Your task to perform on an android device: turn pop-ups off in chrome Image 0: 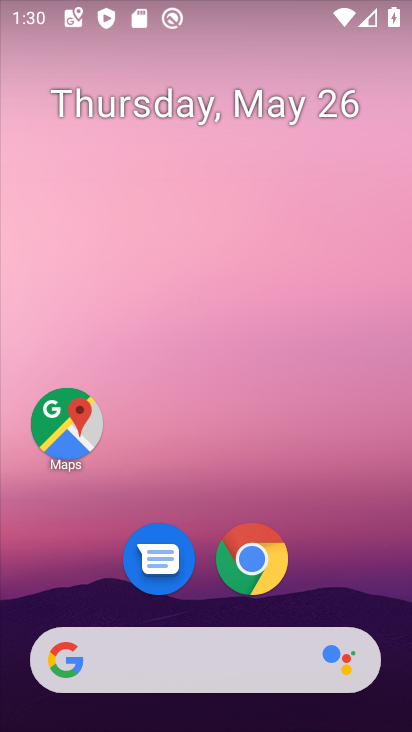
Step 0: press home button
Your task to perform on an android device: turn pop-ups off in chrome Image 1: 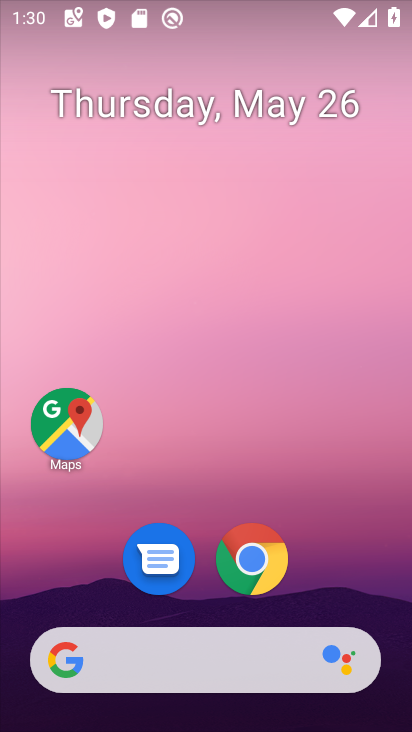
Step 1: click (250, 565)
Your task to perform on an android device: turn pop-ups off in chrome Image 2: 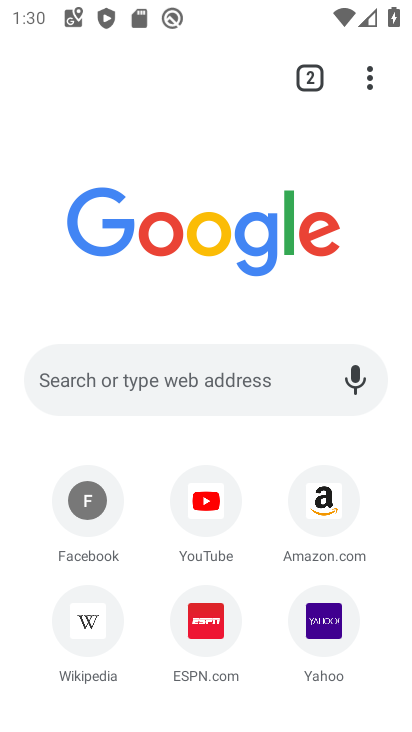
Step 2: drag from (363, 74) to (205, 626)
Your task to perform on an android device: turn pop-ups off in chrome Image 3: 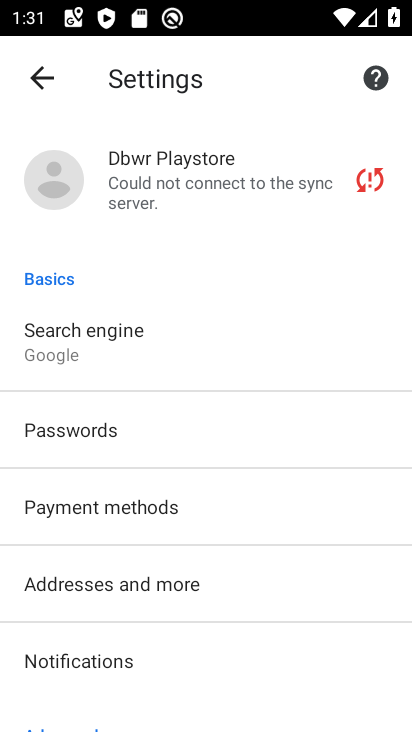
Step 3: drag from (193, 639) to (320, 197)
Your task to perform on an android device: turn pop-ups off in chrome Image 4: 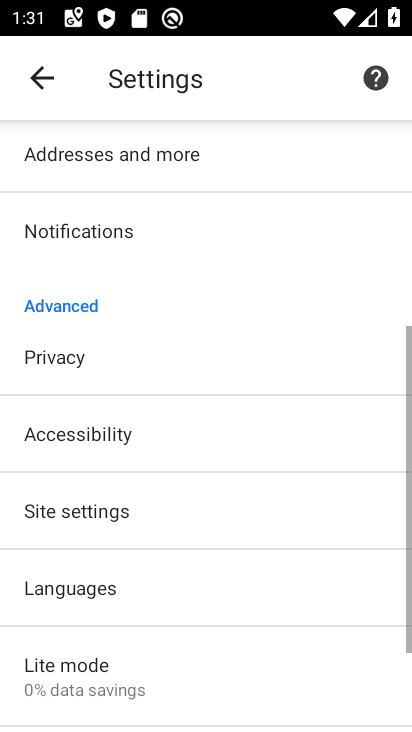
Step 4: click (101, 507)
Your task to perform on an android device: turn pop-ups off in chrome Image 5: 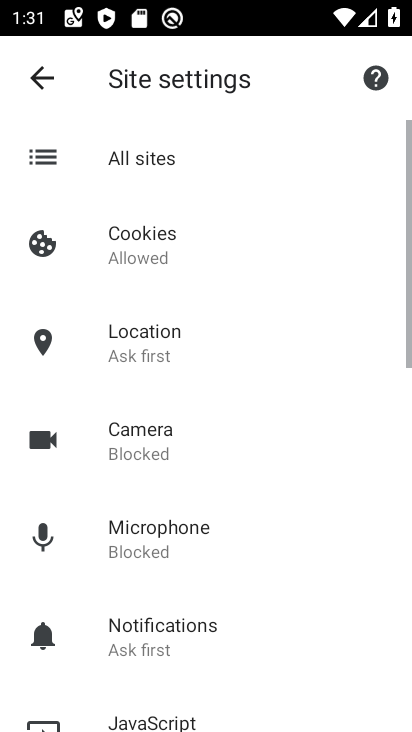
Step 5: drag from (176, 649) to (291, 230)
Your task to perform on an android device: turn pop-ups off in chrome Image 6: 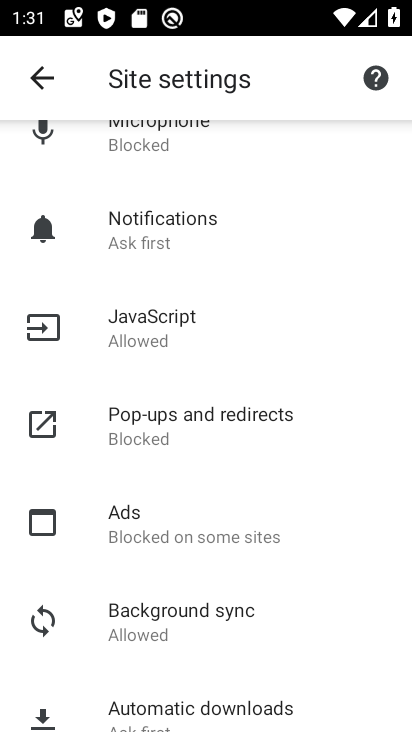
Step 6: click (198, 415)
Your task to perform on an android device: turn pop-ups off in chrome Image 7: 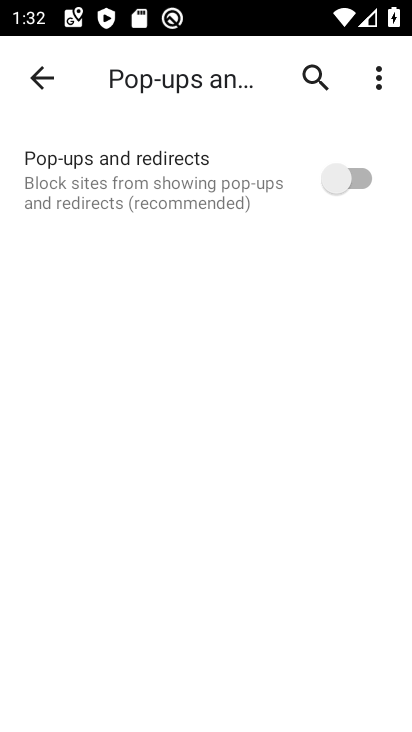
Step 7: task complete